Your task to perform on an android device: Open CNN.com Image 0: 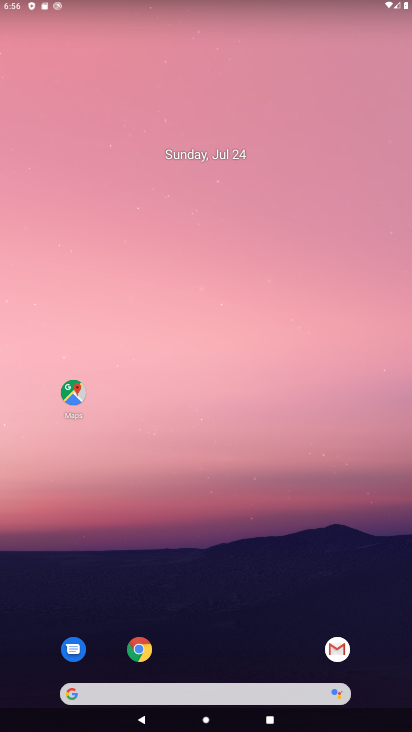
Step 0: click (137, 632)
Your task to perform on an android device: Open CNN.com Image 1: 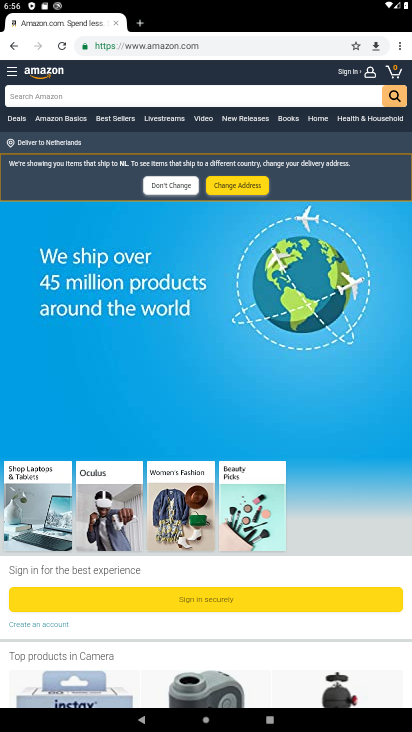
Step 1: click (121, 50)
Your task to perform on an android device: Open CNN.com Image 2: 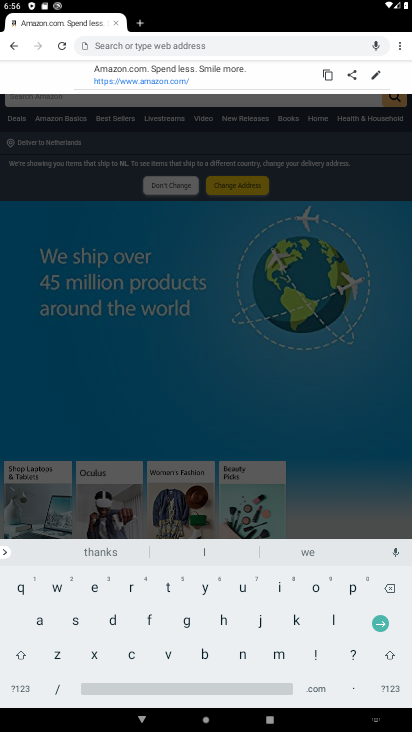
Step 2: click (129, 654)
Your task to perform on an android device: Open CNN.com Image 3: 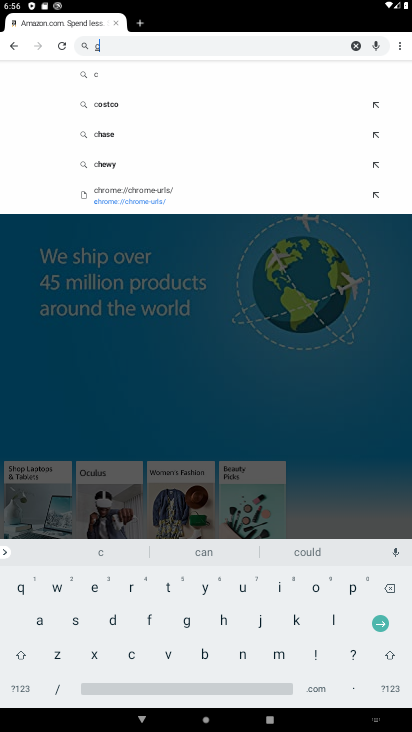
Step 3: click (236, 658)
Your task to perform on an android device: Open CNN.com Image 4: 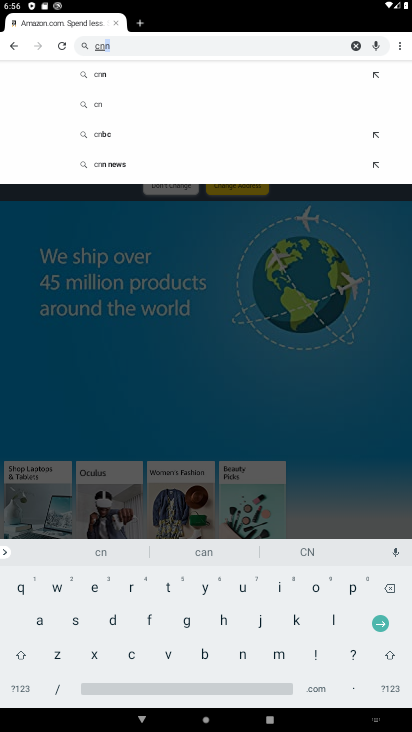
Step 4: click (120, 73)
Your task to perform on an android device: Open CNN.com Image 5: 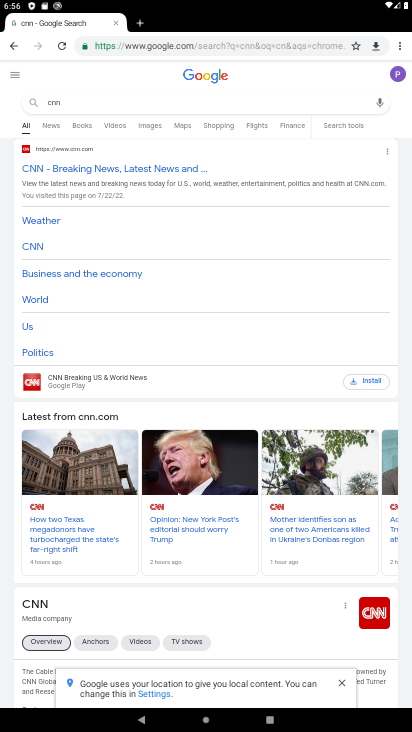
Step 5: click (117, 177)
Your task to perform on an android device: Open CNN.com Image 6: 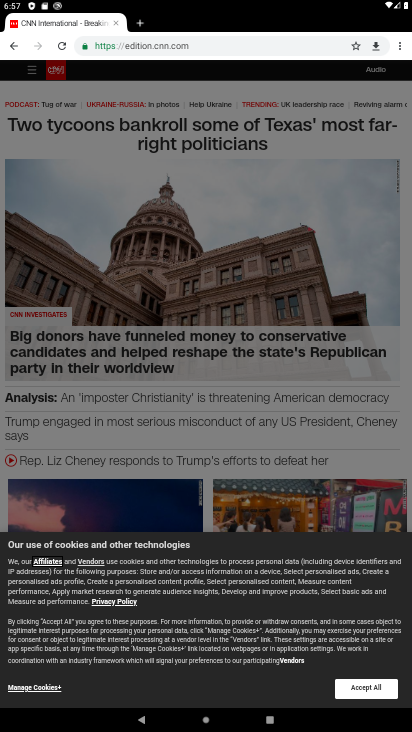
Step 6: task complete